Your task to perform on an android device: open device folders in google photos Image 0: 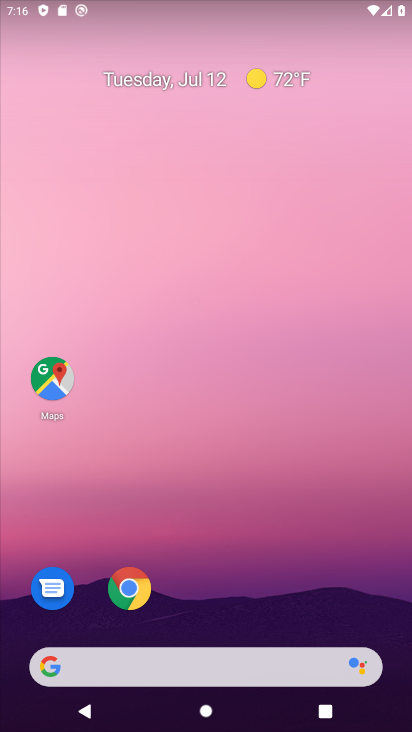
Step 0: drag from (288, 561) to (325, 8)
Your task to perform on an android device: open device folders in google photos Image 1: 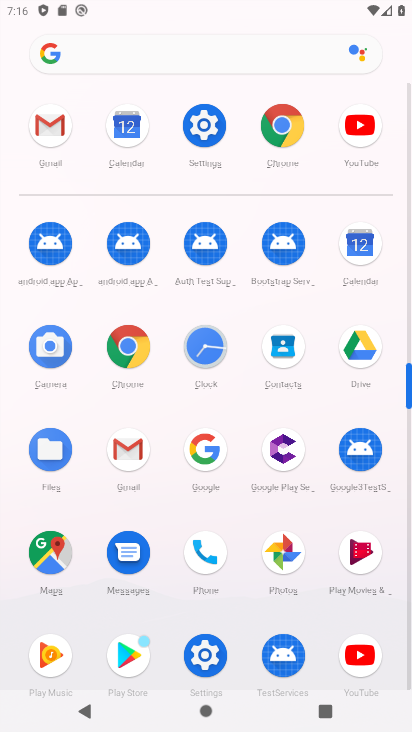
Step 1: click (307, 583)
Your task to perform on an android device: open device folders in google photos Image 2: 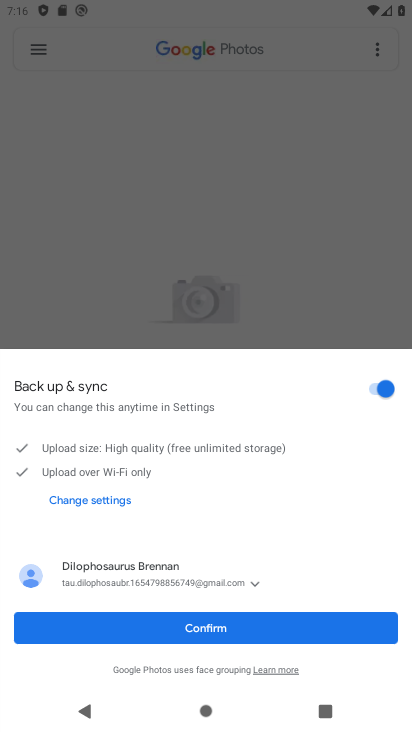
Step 2: click (246, 628)
Your task to perform on an android device: open device folders in google photos Image 3: 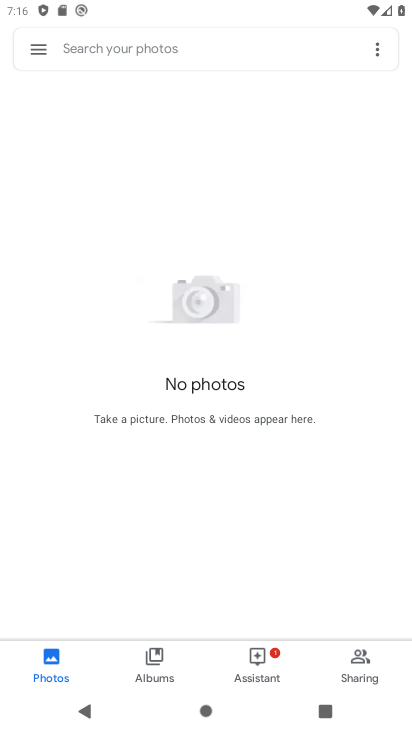
Step 3: click (35, 46)
Your task to perform on an android device: open device folders in google photos Image 4: 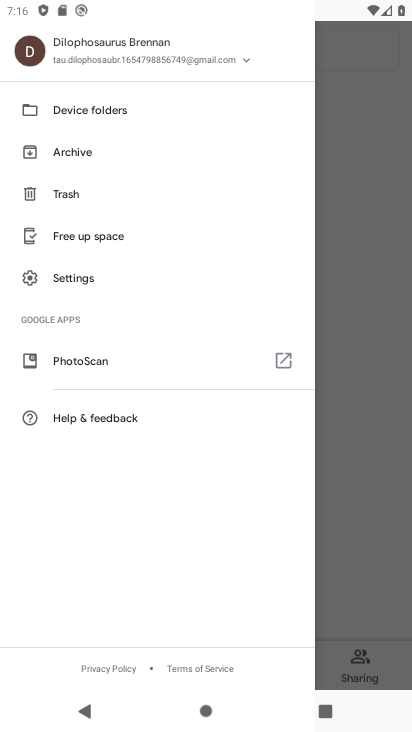
Step 4: click (79, 114)
Your task to perform on an android device: open device folders in google photos Image 5: 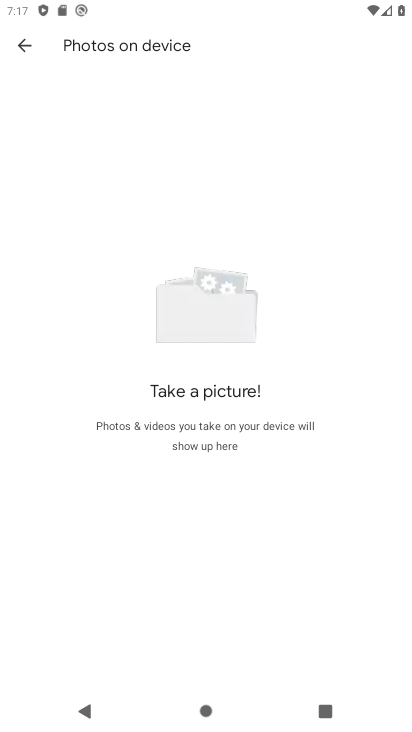
Step 5: task complete